Your task to perform on an android device: toggle sleep mode Image 0: 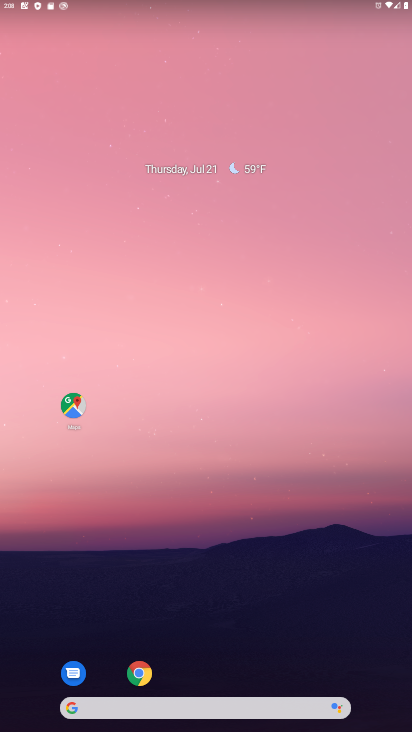
Step 0: click (71, 405)
Your task to perform on an android device: toggle sleep mode Image 1: 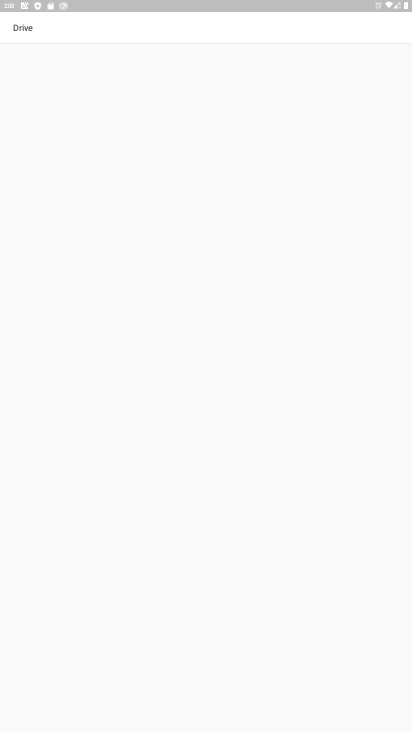
Step 1: press home button
Your task to perform on an android device: toggle sleep mode Image 2: 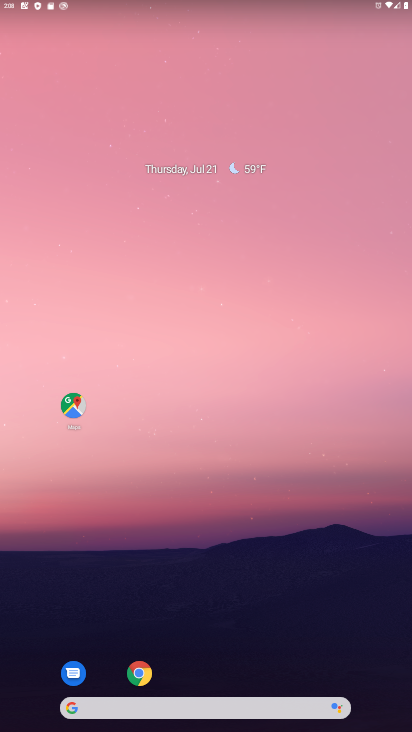
Step 2: drag from (190, 707) to (184, 43)
Your task to perform on an android device: toggle sleep mode Image 3: 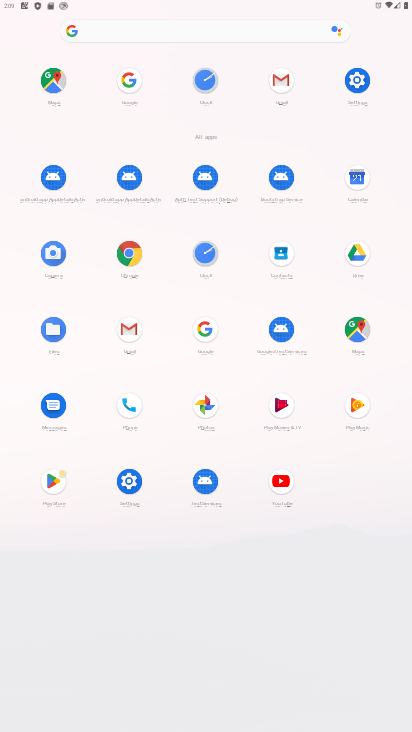
Step 3: click (358, 81)
Your task to perform on an android device: toggle sleep mode Image 4: 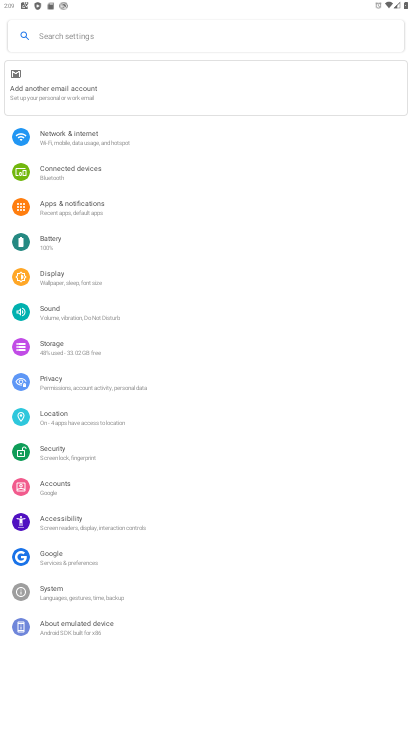
Step 4: click (59, 278)
Your task to perform on an android device: toggle sleep mode Image 5: 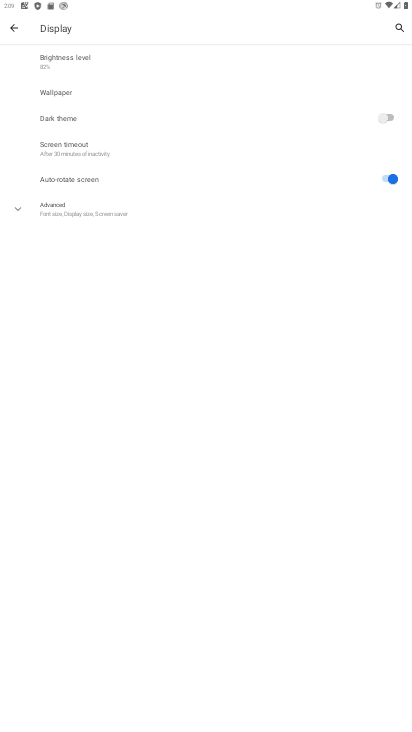
Step 5: click (85, 146)
Your task to perform on an android device: toggle sleep mode Image 6: 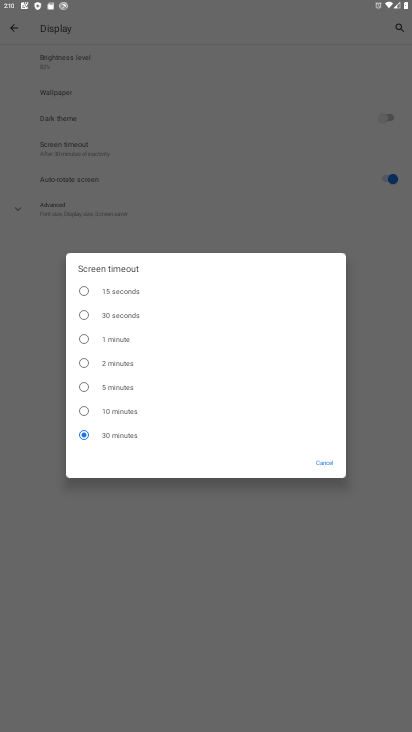
Step 6: click (108, 366)
Your task to perform on an android device: toggle sleep mode Image 7: 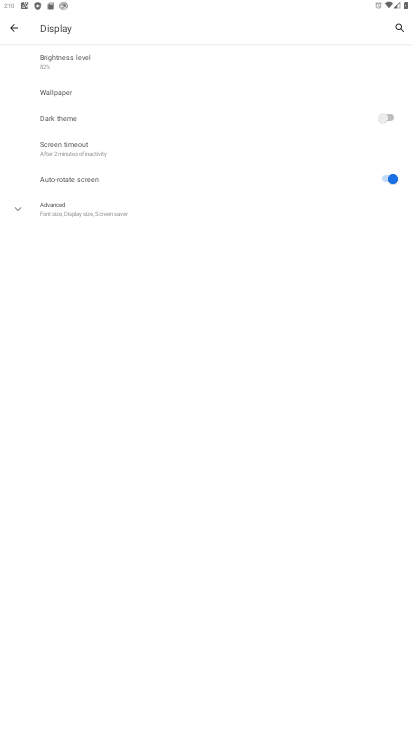
Step 7: task complete